Your task to perform on an android device: What's on my calendar tomorrow? Image 0: 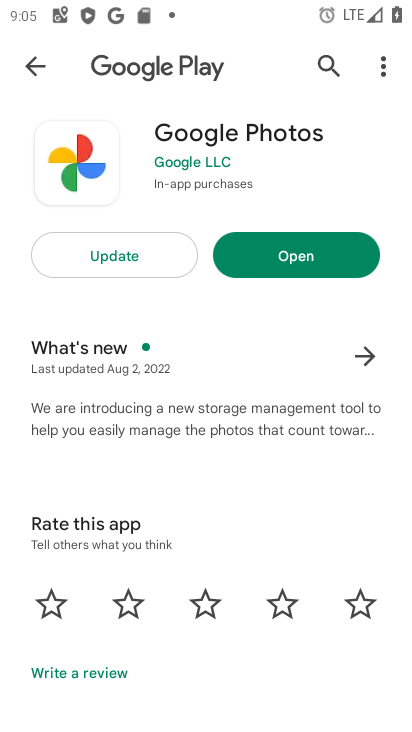
Step 0: press home button
Your task to perform on an android device: What's on my calendar tomorrow? Image 1: 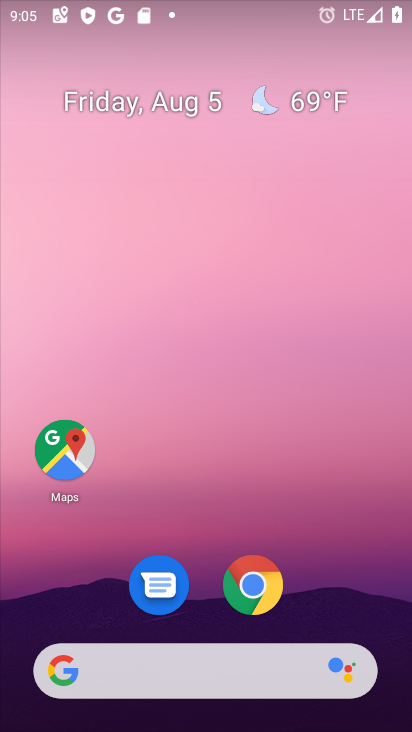
Step 1: drag from (294, 545) to (288, 30)
Your task to perform on an android device: What's on my calendar tomorrow? Image 2: 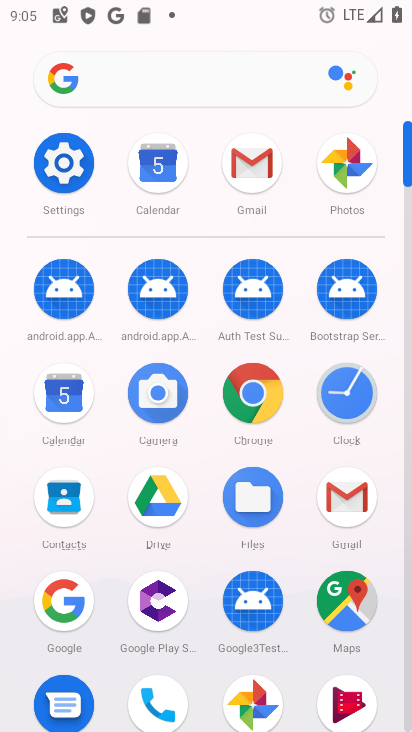
Step 2: click (160, 167)
Your task to perform on an android device: What's on my calendar tomorrow? Image 3: 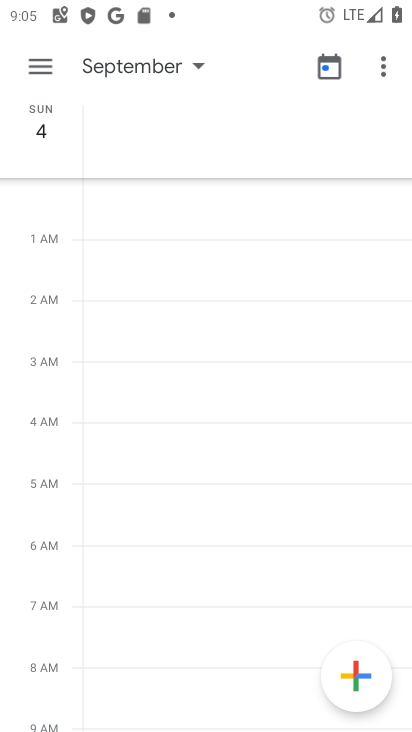
Step 3: click (45, 61)
Your task to perform on an android device: What's on my calendar tomorrow? Image 4: 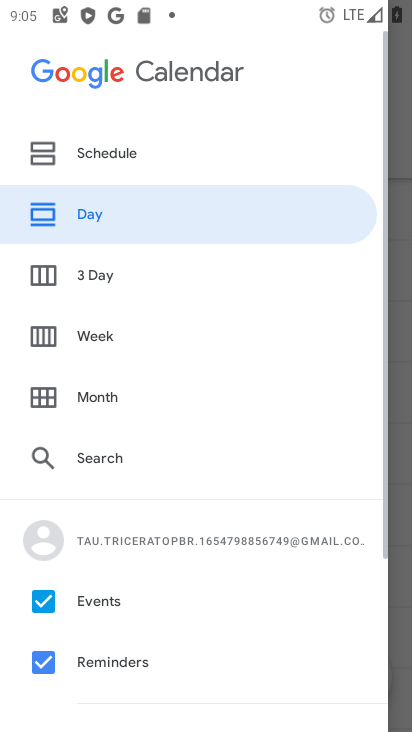
Step 4: click (42, 145)
Your task to perform on an android device: What's on my calendar tomorrow? Image 5: 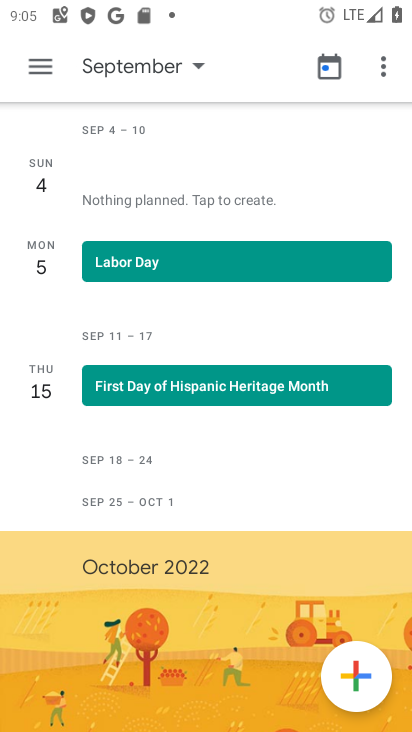
Step 5: click (43, 71)
Your task to perform on an android device: What's on my calendar tomorrow? Image 6: 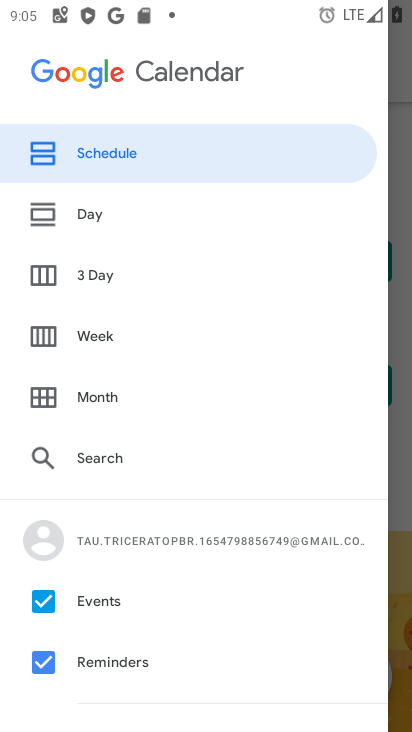
Step 6: click (47, 390)
Your task to perform on an android device: What's on my calendar tomorrow? Image 7: 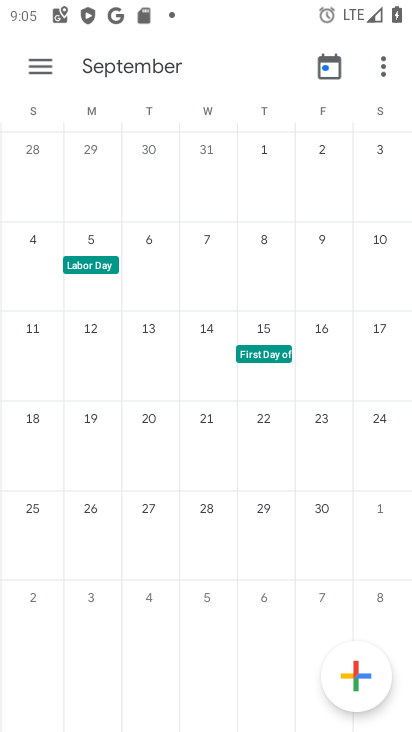
Step 7: drag from (84, 359) to (404, 321)
Your task to perform on an android device: What's on my calendar tomorrow? Image 8: 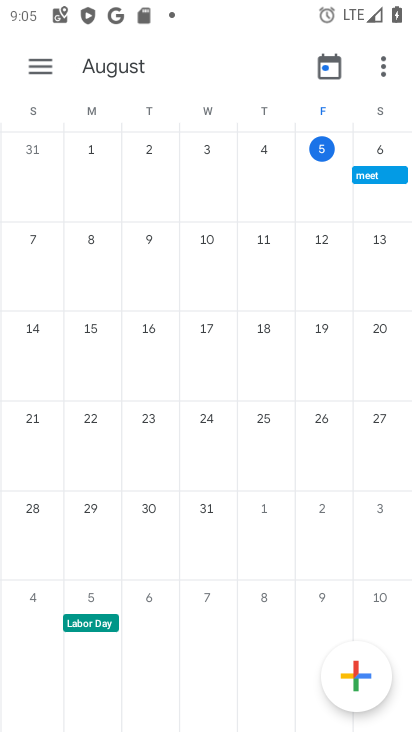
Step 8: click (377, 147)
Your task to perform on an android device: What's on my calendar tomorrow? Image 9: 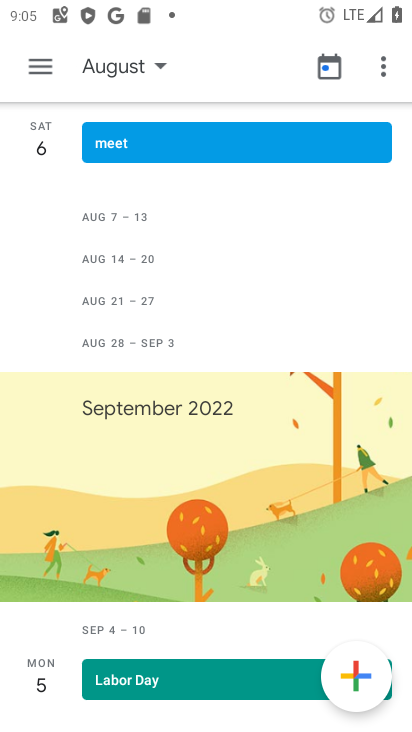
Step 9: task complete